Your task to perform on an android device: Show me productivity apps on the Play Store Image 0: 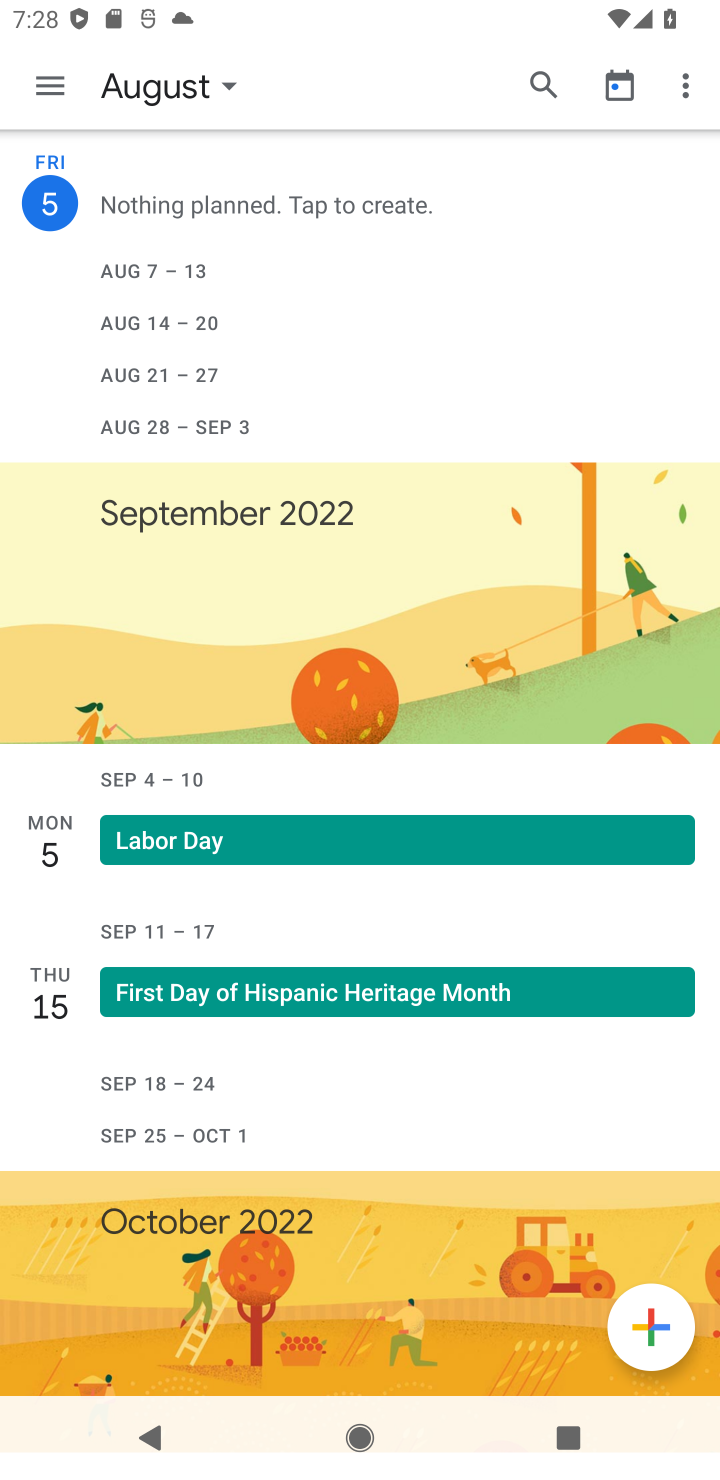
Step 0: press home button
Your task to perform on an android device: Show me productivity apps on the Play Store Image 1: 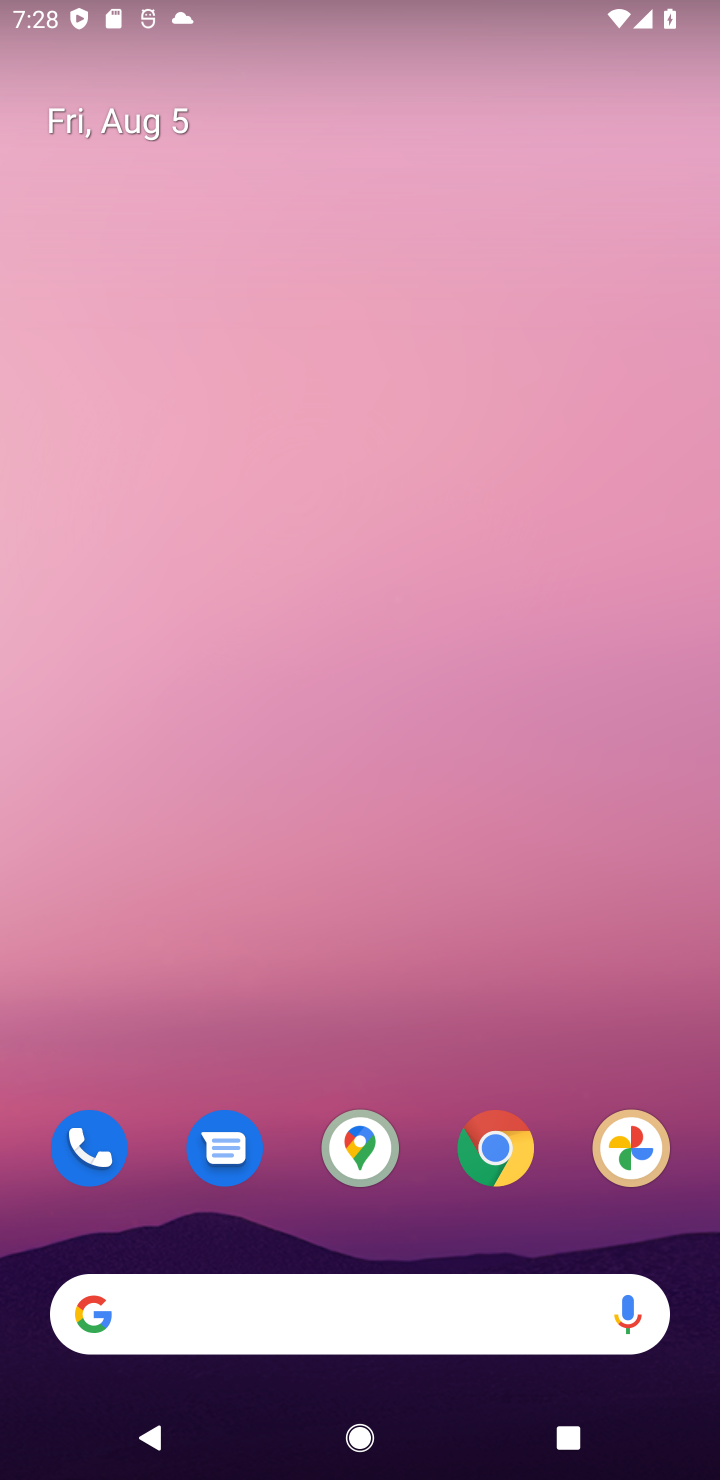
Step 1: drag from (422, 1263) to (434, 136)
Your task to perform on an android device: Show me productivity apps on the Play Store Image 2: 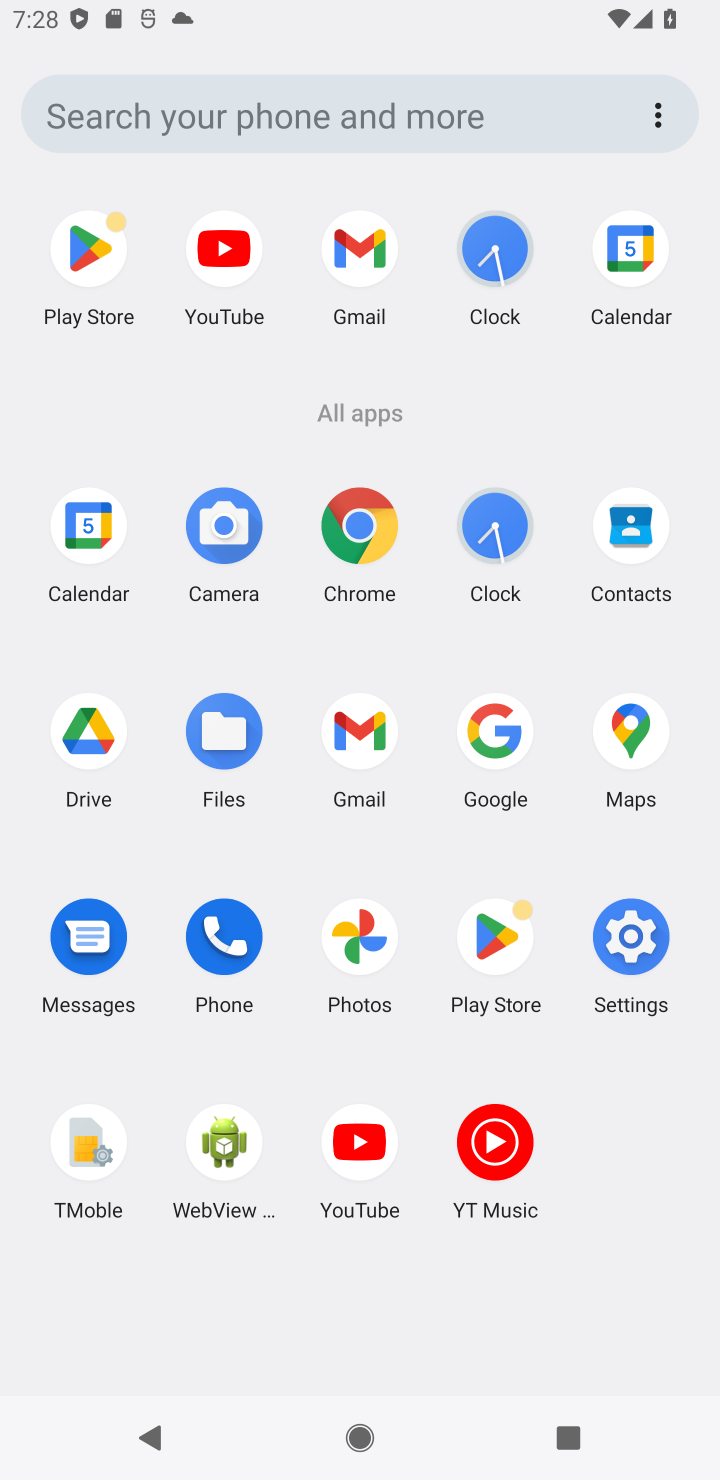
Step 2: click (96, 259)
Your task to perform on an android device: Show me productivity apps on the Play Store Image 3: 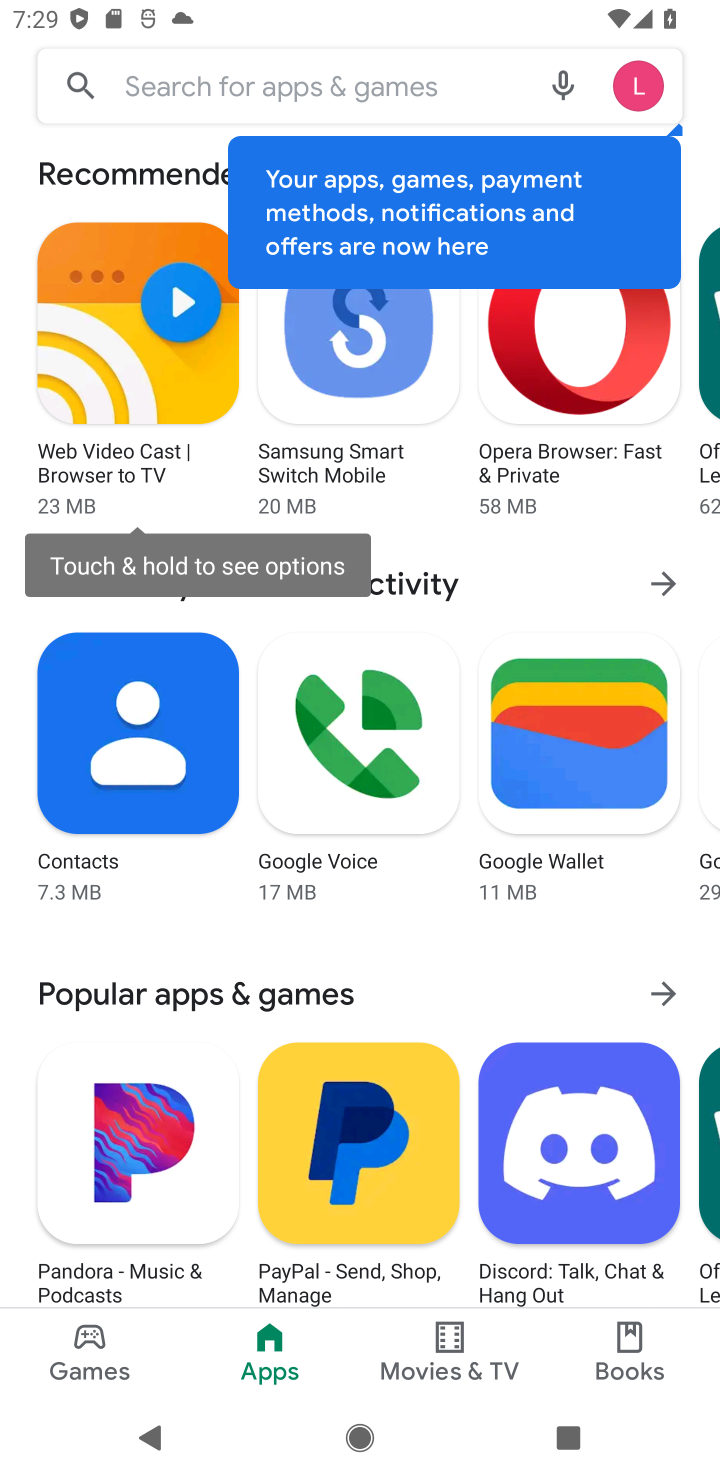
Step 3: click (265, 1377)
Your task to perform on an android device: Show me productivity apps on the Play Store Image 4: 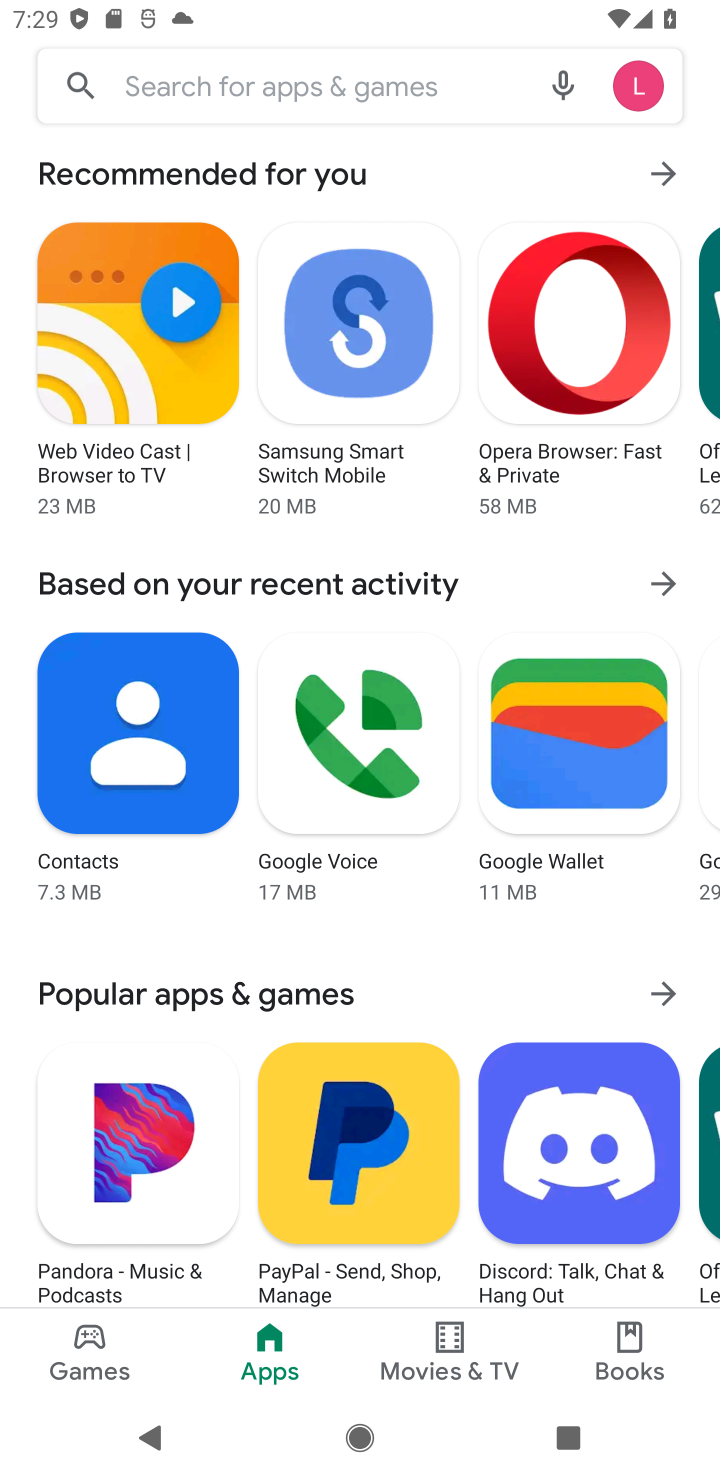
Step 4: click (656, 176)
Your task to perform on an android device: Show me productivity apps on the Play Store Image 5: 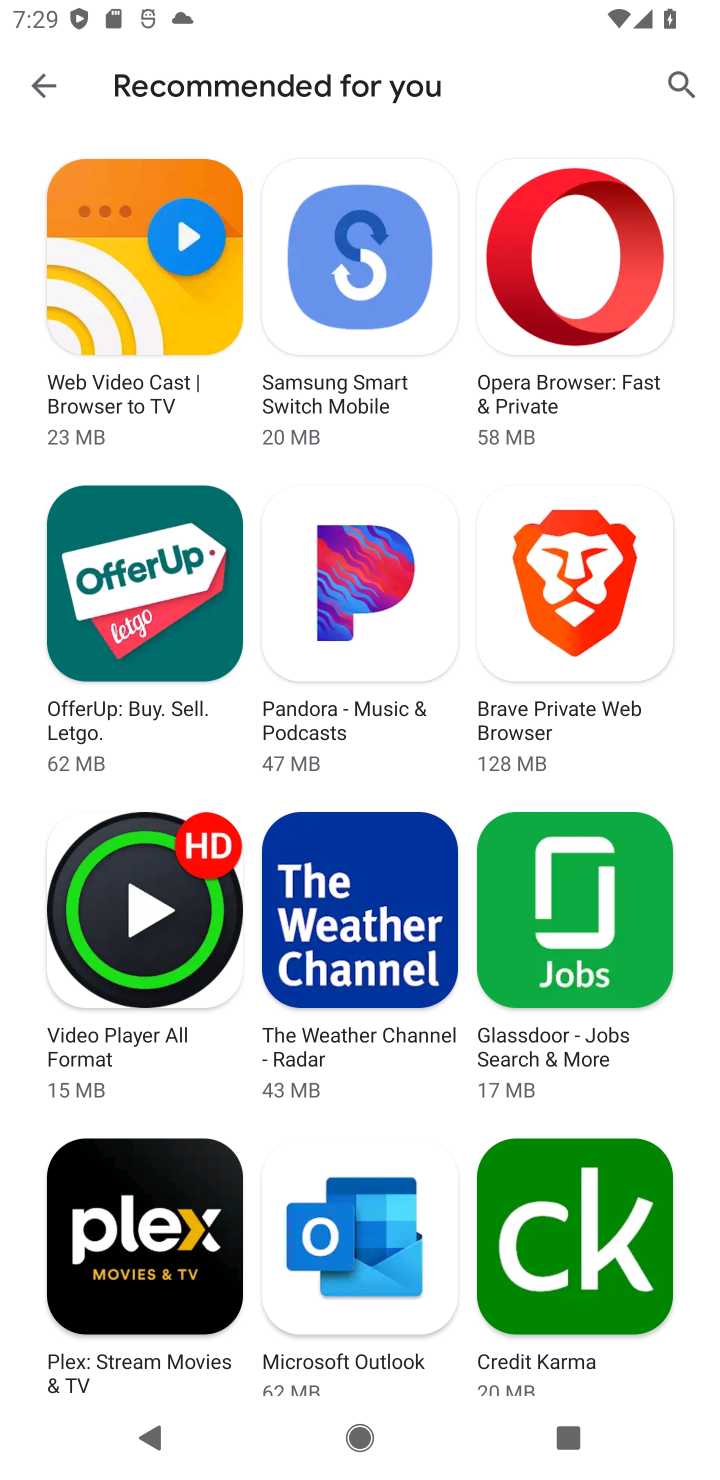
Step 5: click (148, 1478)
Your task to perform on an android device: Show me productivity apps on the Play Store Image 6: 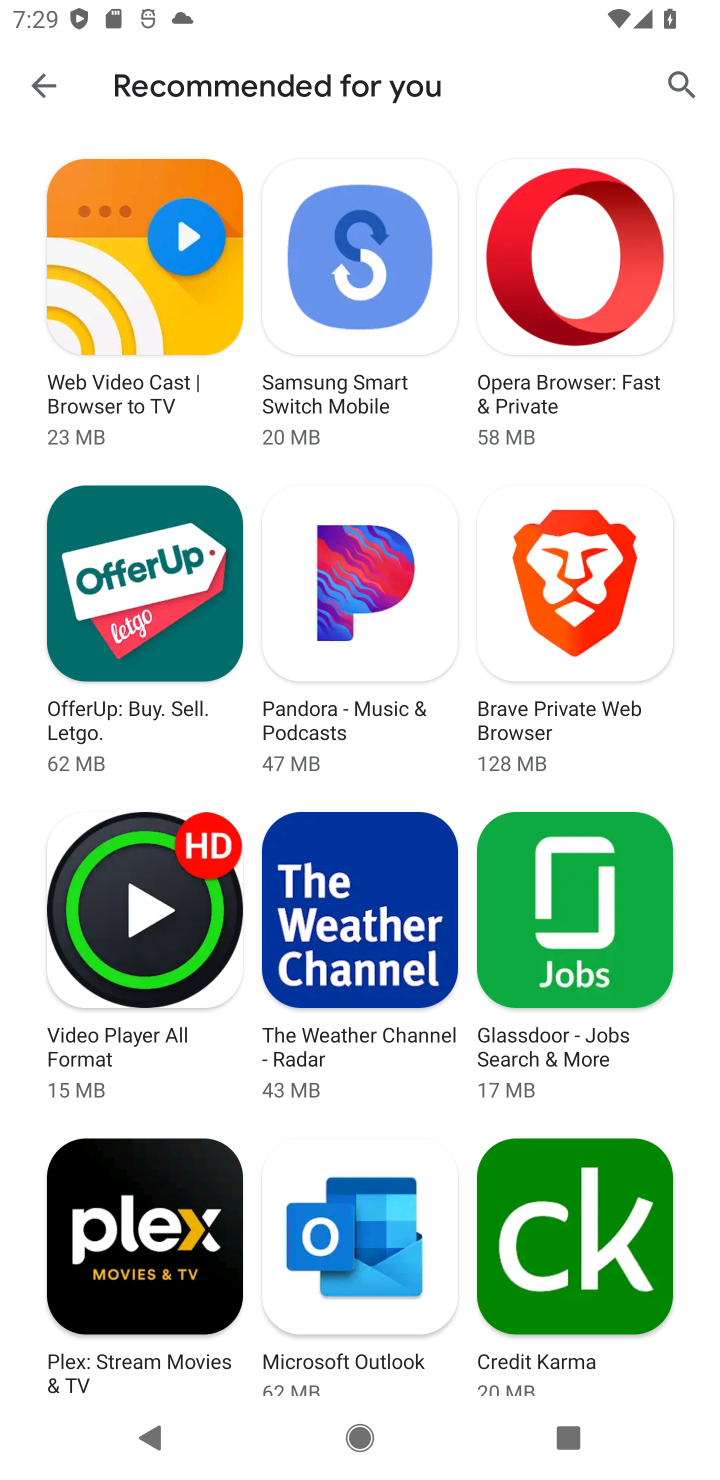
Step 6: click (147, 1443)
Your task to perform on an android device: Show me productivity apps on the Play Store Image 7: 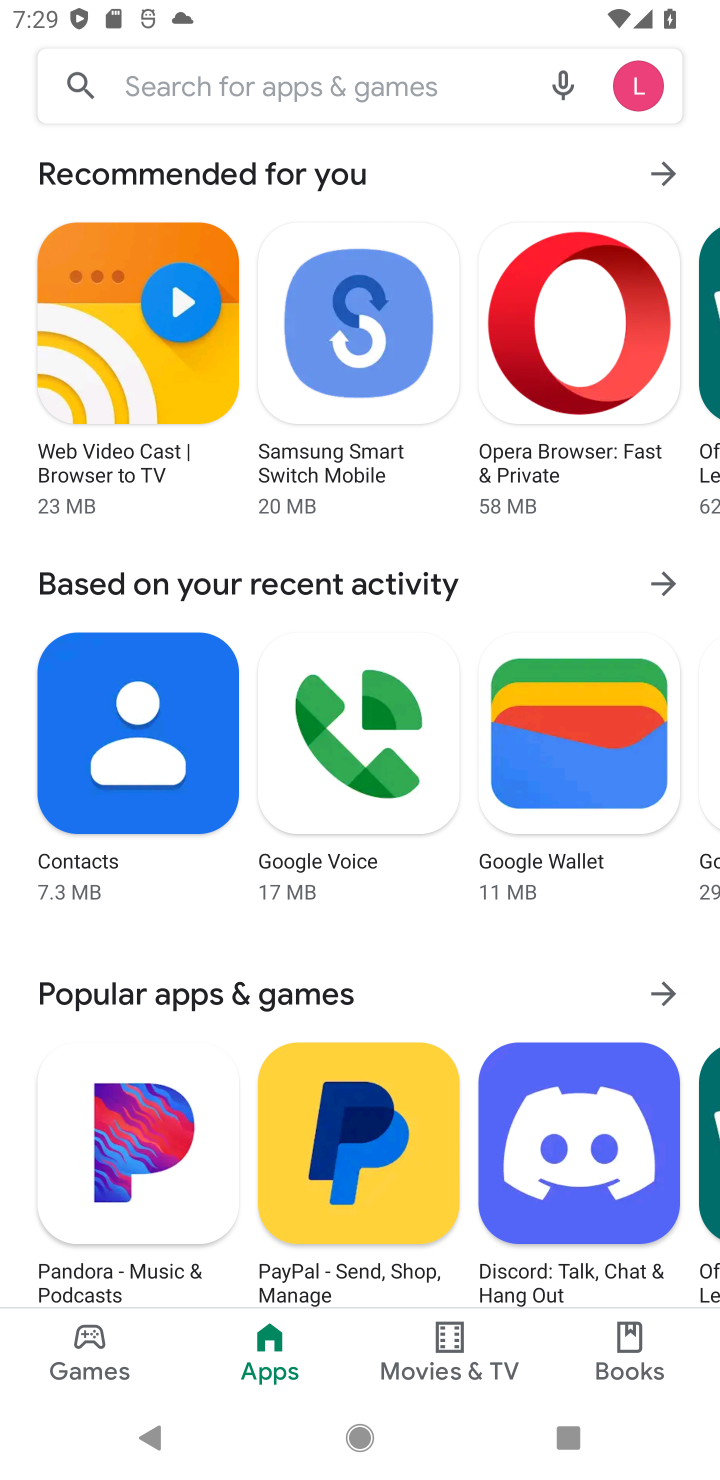
Step 7: task complete